Your task to perform on an android device: check the backup settings in the google photos Image 0: 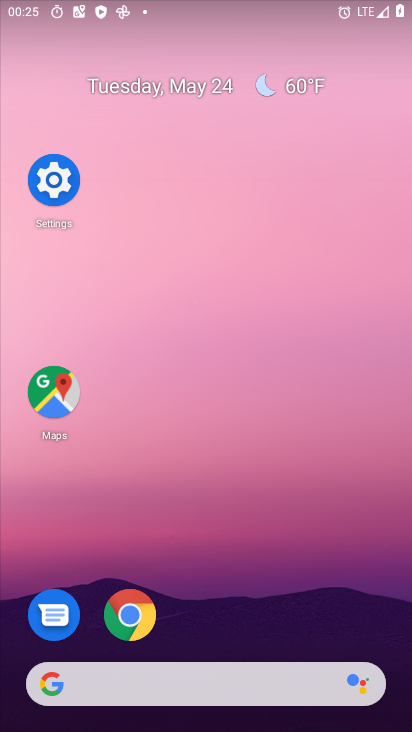
Step 0: drag from (219, 585) to (234, 33)
Your task to perform on an android device: check the backup settings in the google photos Image 1: 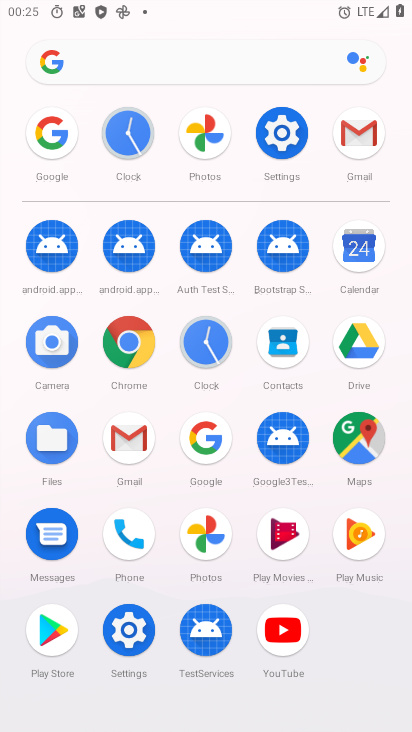
Step 1: click (214, 524)
Your task to perform on an android device: check the backup settings in the google photos Image 2: 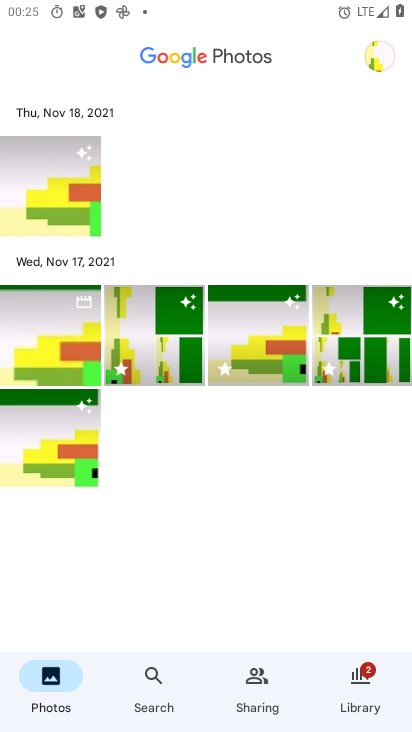
Step 2: click (365, 63)
Your task to perform on an android device: check the backup settings in the google photos Image 3: 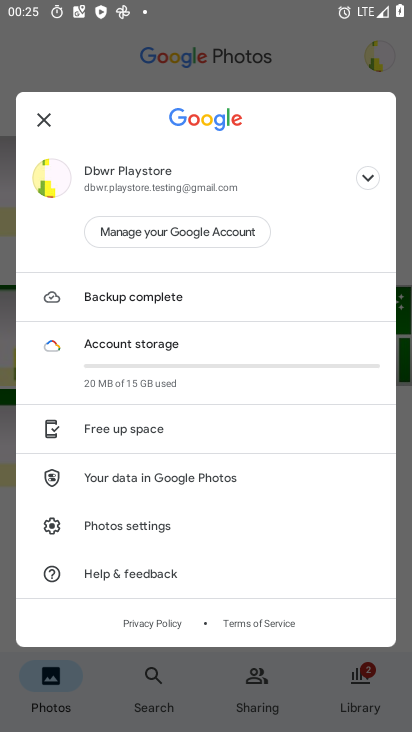
Step 3: click (152, 526)
Your task to perform on an android device: check the backup settings in the google photos Image 4: 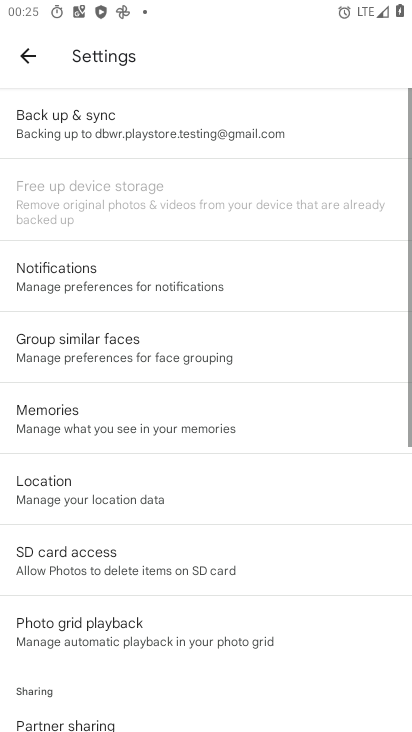
Step 4: click (155, 133)
Your task to perform on an android device: check the backup settings in the google photos Image 5: 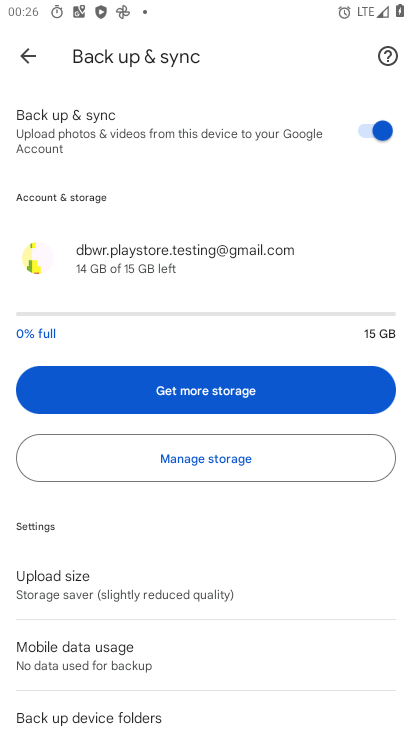
Step 5: task complete